Your task to perform on an android device: Turn off the flashlight Image 0: 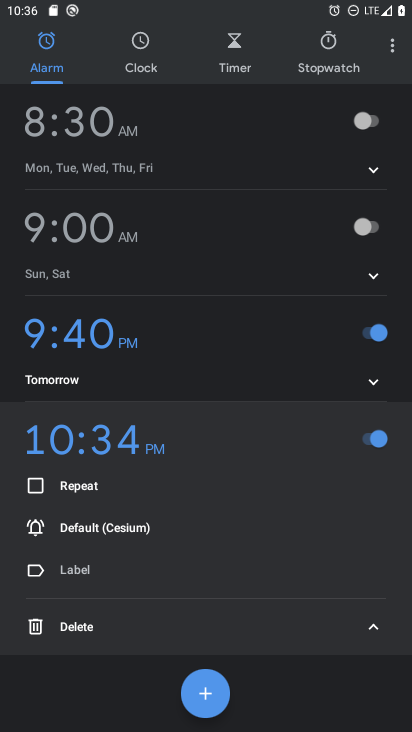
Step 0: press home button
Your task to perform on an android device: Turn off the flashlight Image 1: 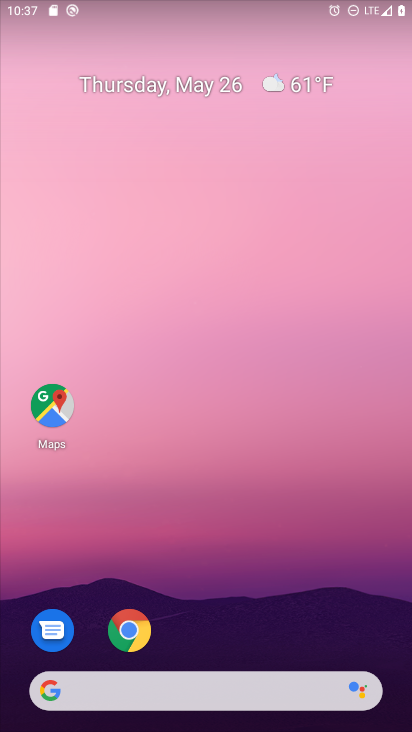
Step 1: drag from (260, 666) to (314, 26)
Your task to perform on an android device: Turn off the flashlight Image 2: 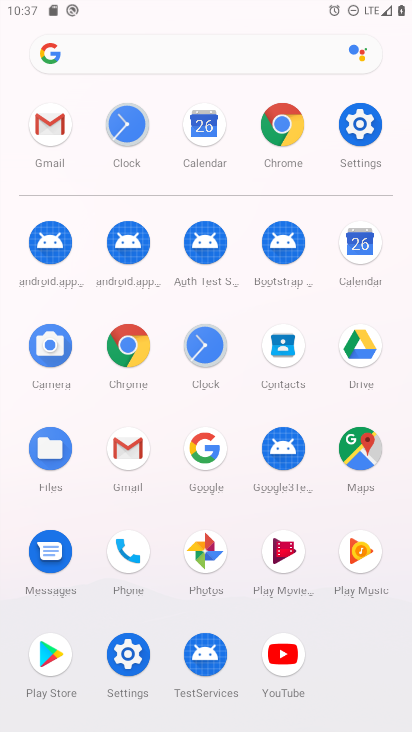
Step 2: click (127, 665)
Your task to perform on an android device: Turn off the flashlight Image 3: 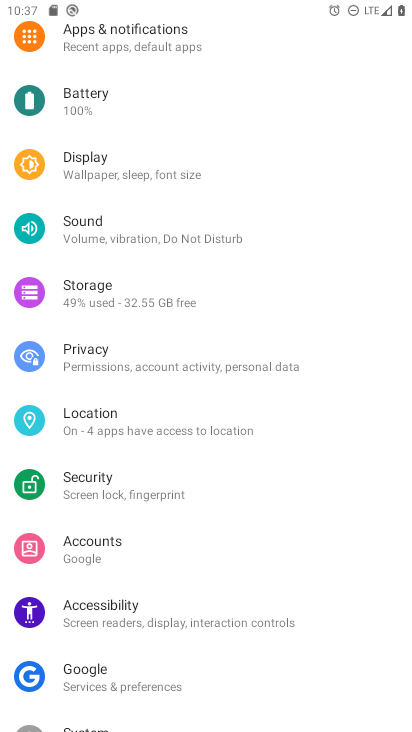
Step 3: drag from (118, 97) to (122, 646)
Your task to perform on an android device: Turn off the flashlight Image 4: 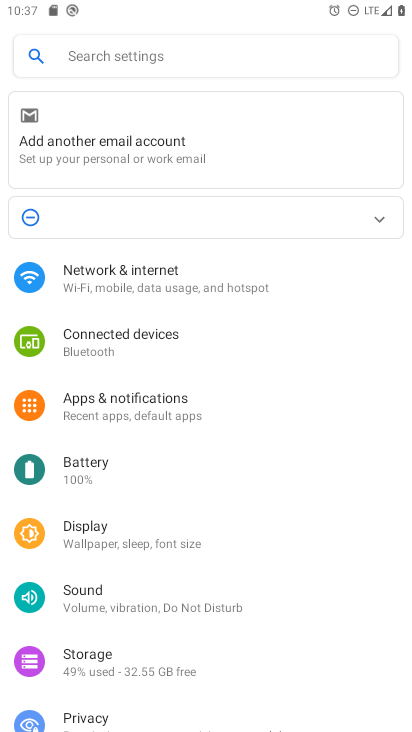
Step 4: click (138, 57)
Your task to perform on an android device: Turn off the flashlight Image 5: 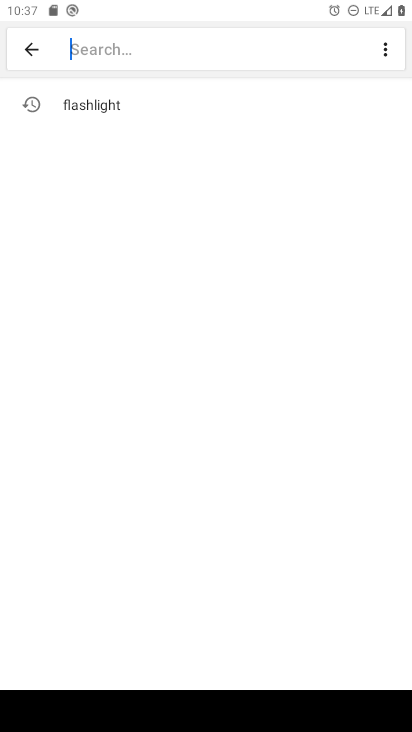
Step 5: click (112, 104)
Your task to perform on an android device: Turn off the flashlight Image 6: 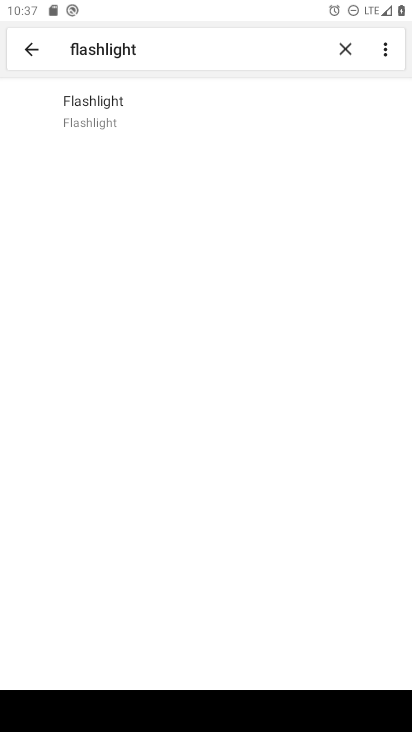
Step 6: task complete